Your task to perform on an android device: toggle improve location accuracy Image 0: 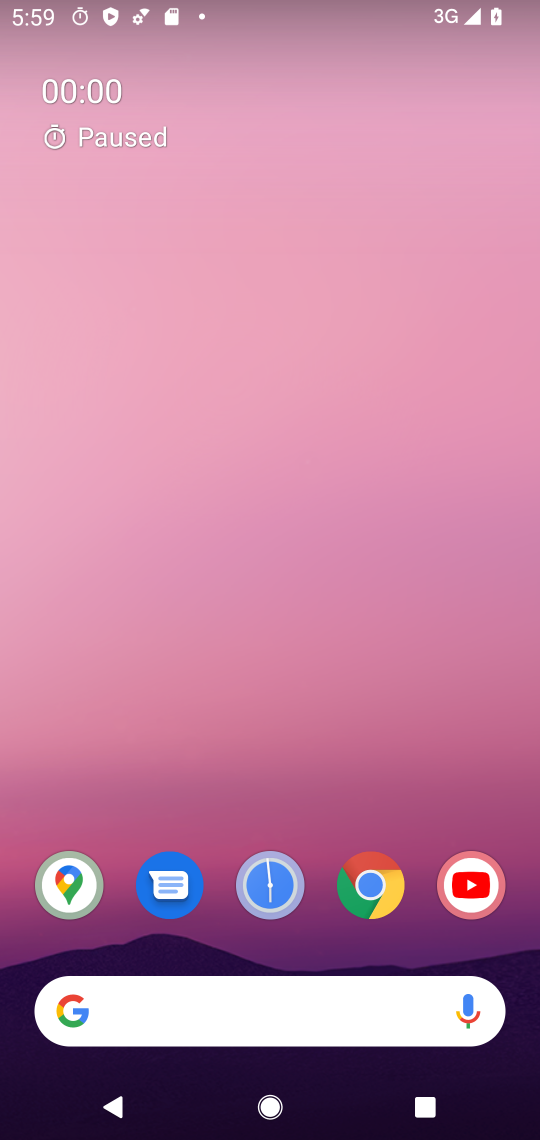
Step 0: drag from (322, 947) to (155, 98)
Your task to perform on an android device: toggle improve location accuracy Image 1: 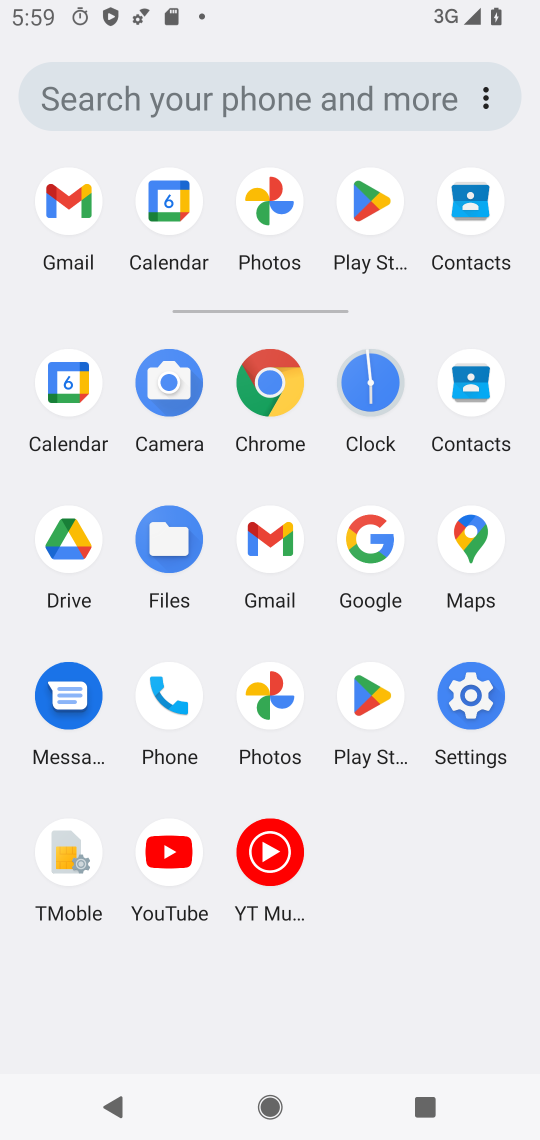
Step 1: click (460, 679)
Your task to perform on an android device: toggle improve location accuracy Image 2: 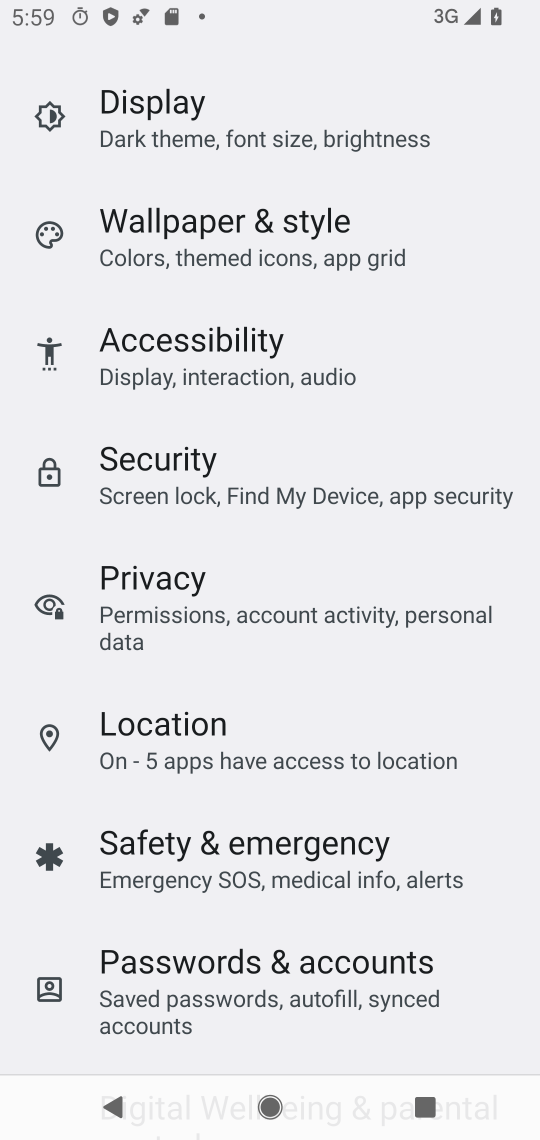
Step 2: click (112, 741)
Your task to perform on an android device: toggle improve location accuracy Image 3: 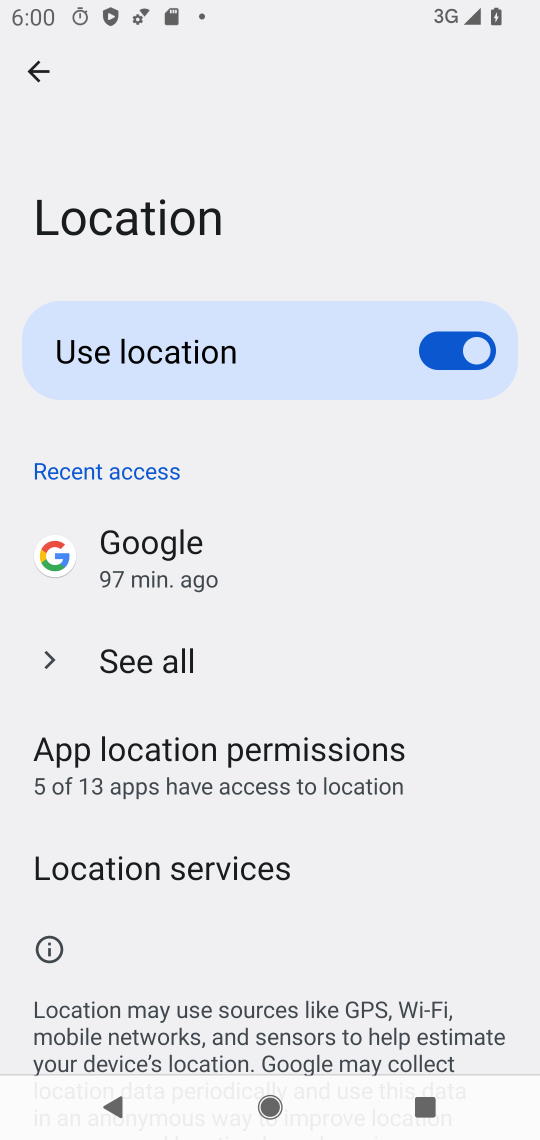
Step 3: click (187, 872)
Your task to perform on an android device: toggle improve location accuracy Image 4: 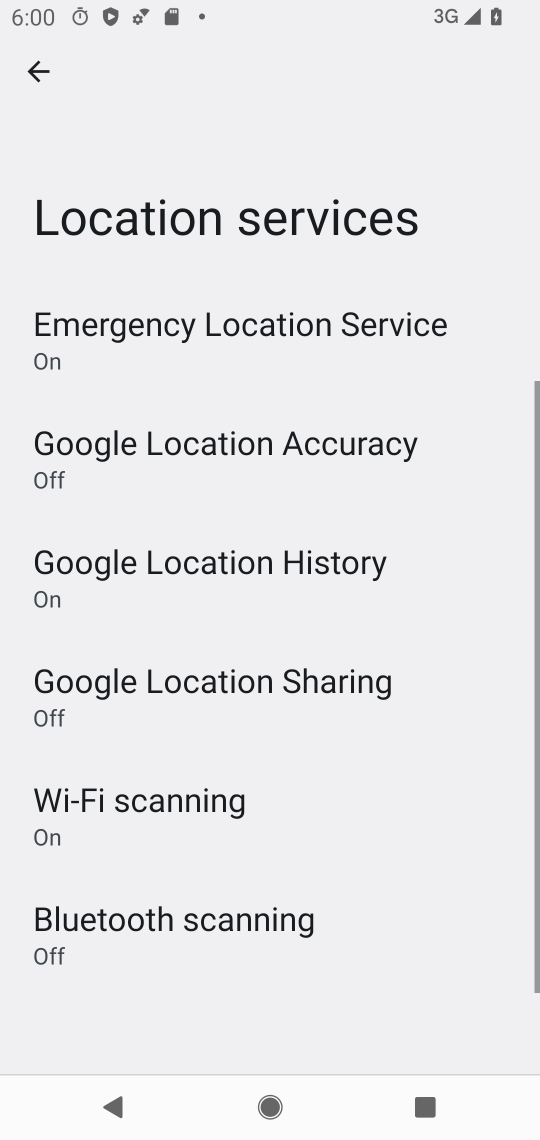
Step 4: click (351, 461)
Your task to perform on an android device: toggle improve location accuracy Image 5: 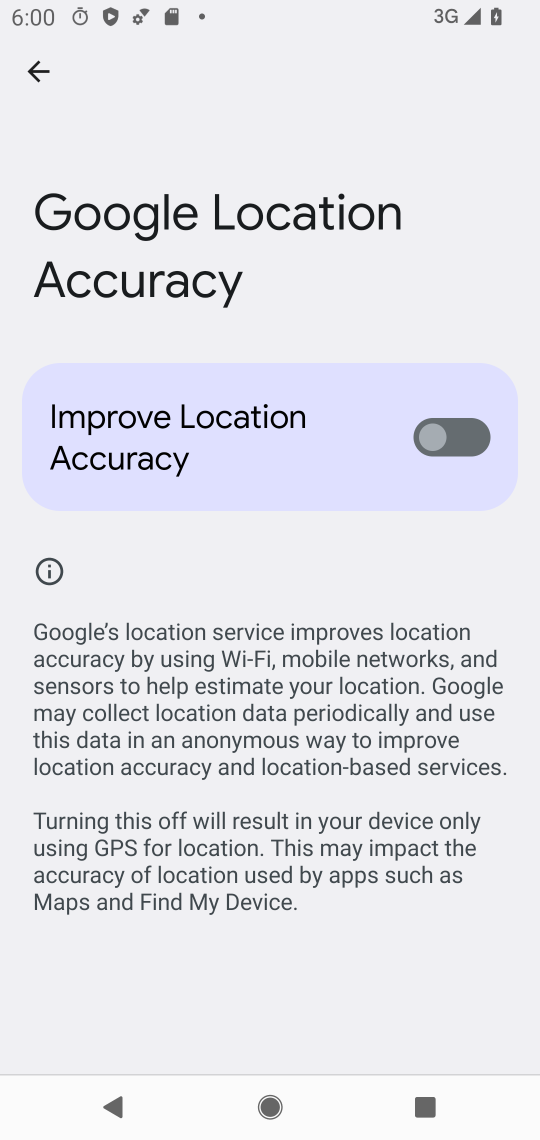
Step 5: click (464, 446)
Your task to perform on an android device: toggle improve location accuracy Image 6: 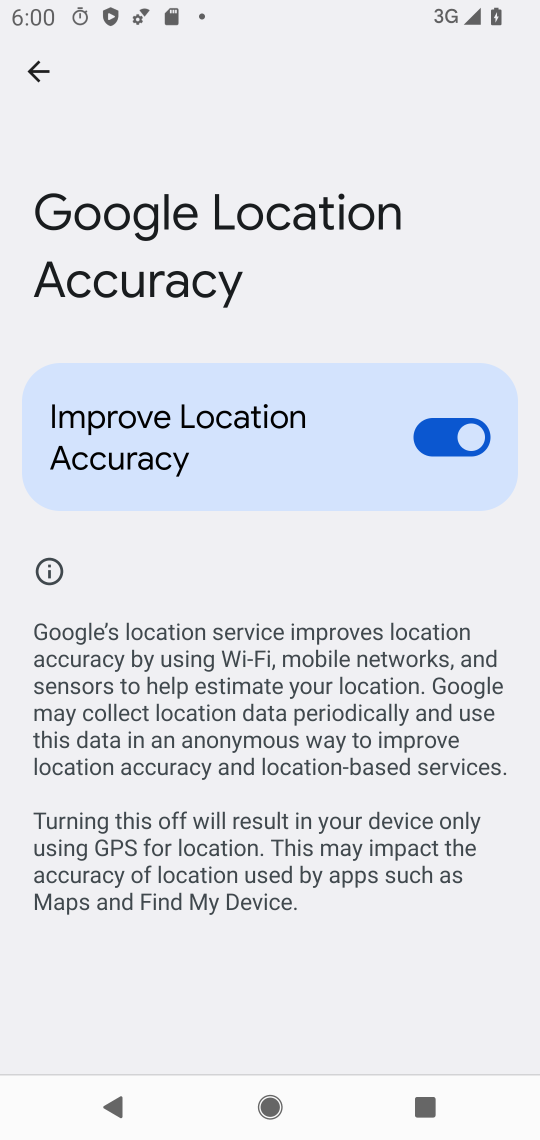
Step 6: task complete